Your task to perform on an android device: toggle location history Image 0: 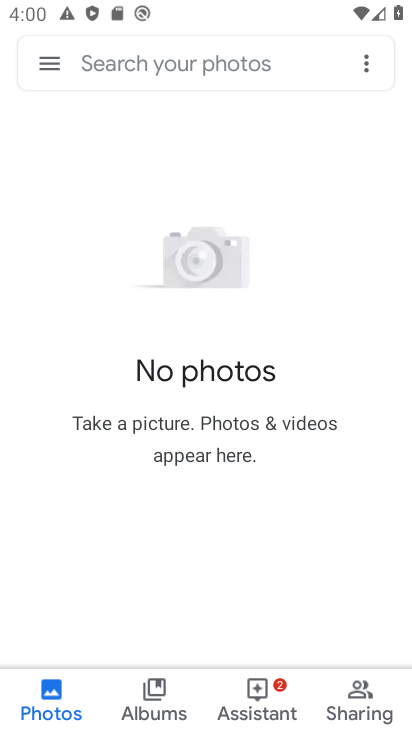
Step 0: press home button
Your task to perform on an android device: toggle location history Image 1: 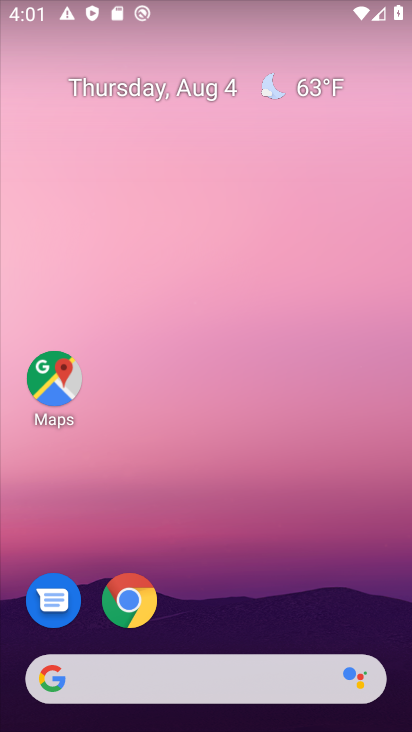
Step 1: drag from (313, 579) to (240, 2)
Your task to perform on an android device: toggle location history Image 2: 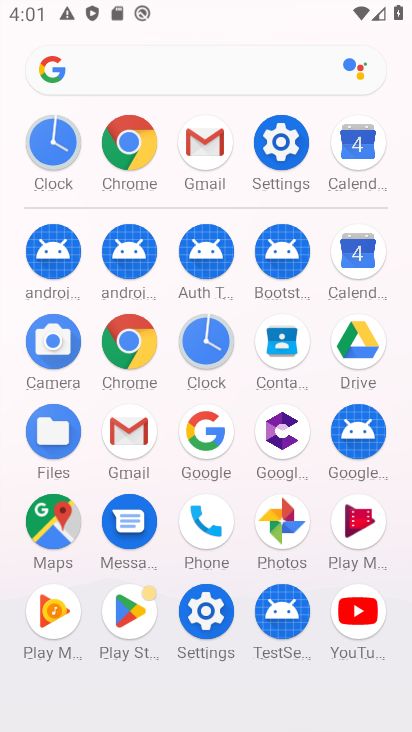
Step 2: click (277, 139)
Your task to perform on an android device: toggle location history Image 3: 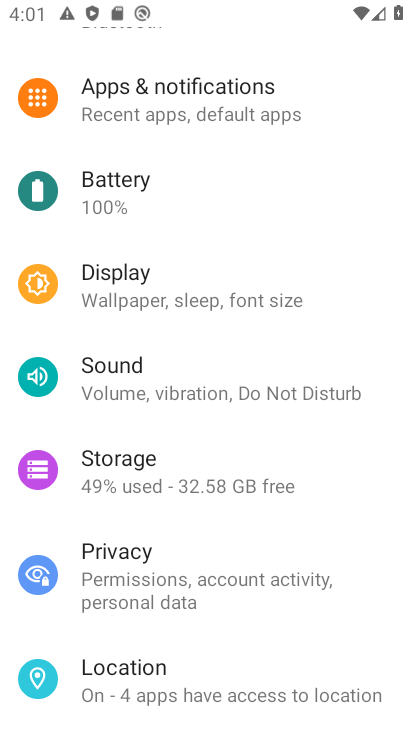
Step 3: drag from (266, 633) to (318, 154)
Your task to perform on an android device: toggle location history Image 4: 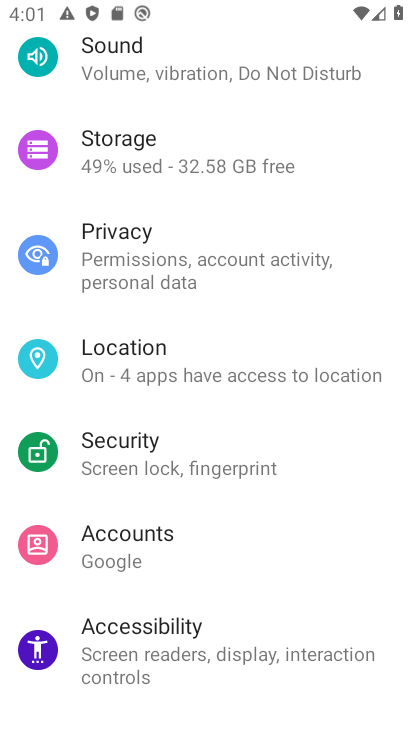
Step 4: click (163, 364)
Your task to perform on an android device: toggle location history Image 5: 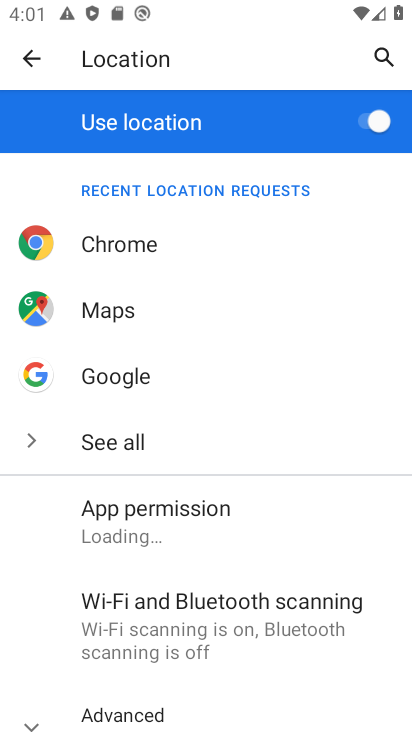
Step 5: drag from (249, 608) to (304, 226)
Your task to perform on an android device: toggle location history Image 6: 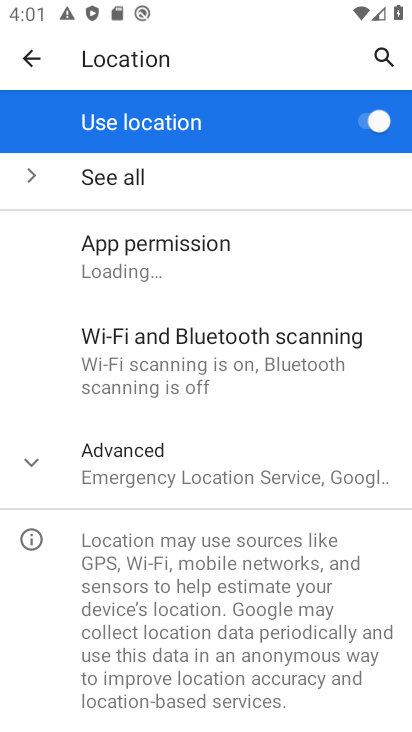
Step 6: click (167, 473)
Your task to perform on an android device: toggle location history Image 7: 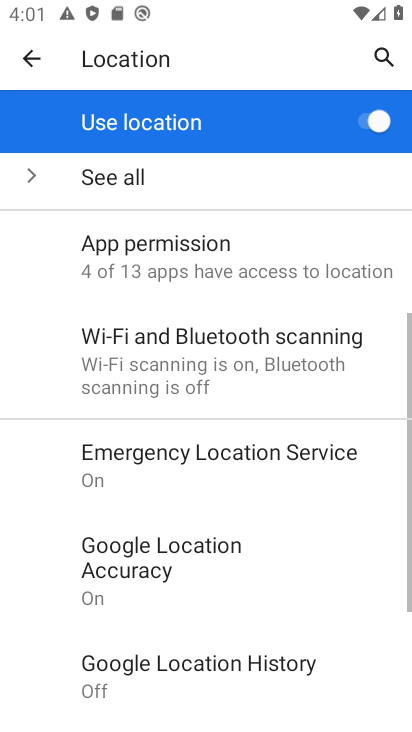
Step 7: drag from (276, 630) to (405, 217)
Your task to perform on an android device: toggle location history Image 8: 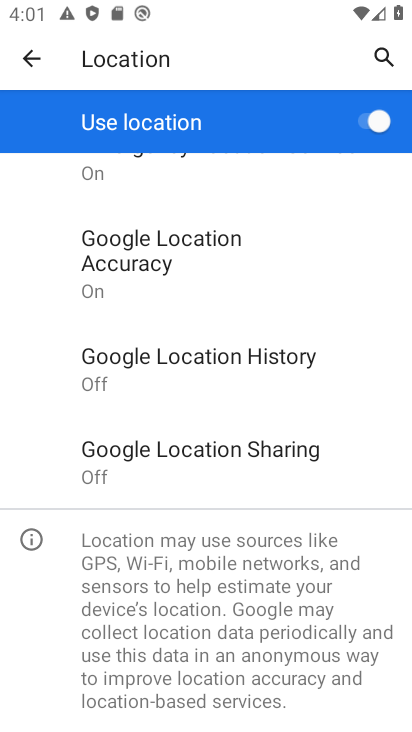
Step 8: click (210, 352)
Your task to perform on an android device: toggle location history Image 9: 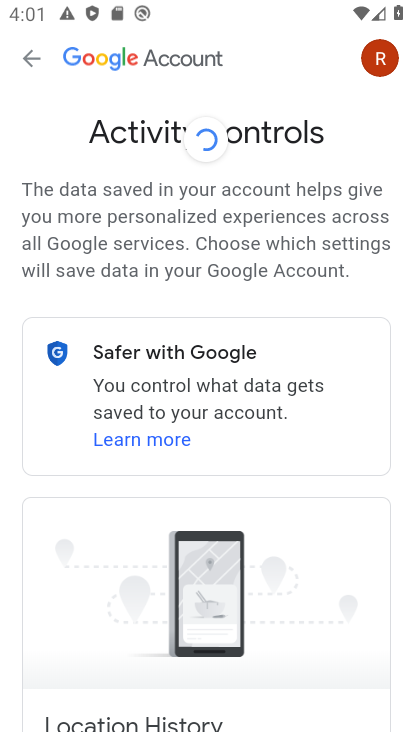
Step 9: drag from (291, 587) to (350, 236)
Your task to perform on an android device: toggle location history Image 10: 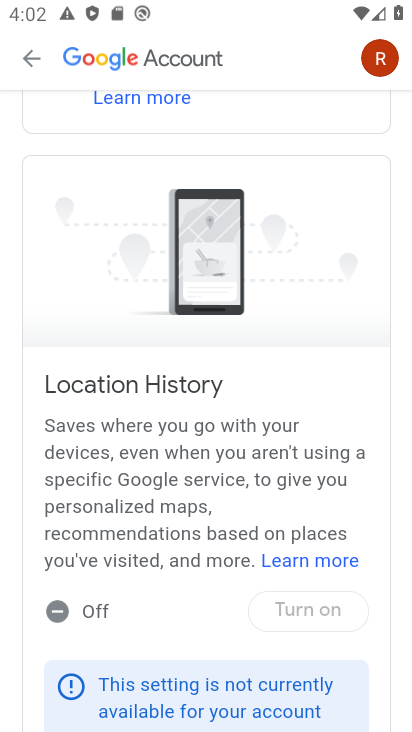
Step 10: drag from (271, 519) to (336, 270)
Your task to perform on an android device: toggle location history Image 11: 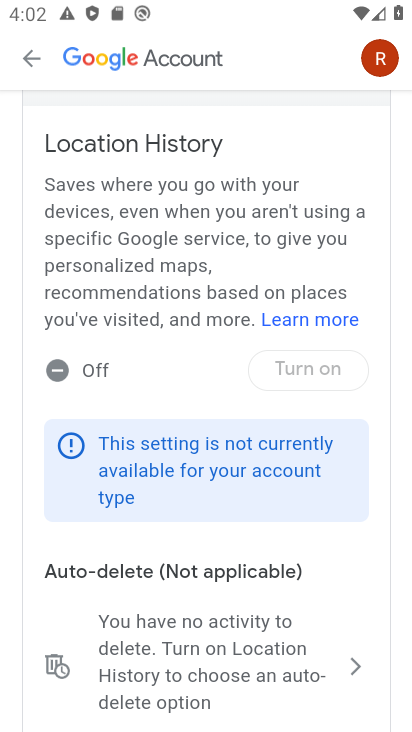
Step 11: click (123, 367)
Your task to perform on an android device: toggle location history Image 12: 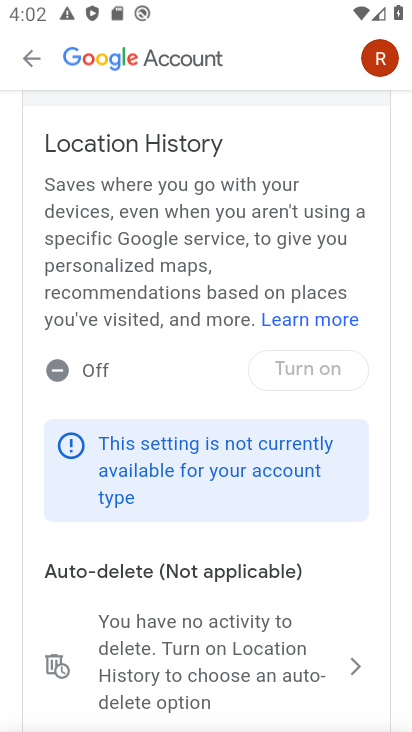
Step 12: click (90, 366)
Your task to perform on an android device: toggle location history Image 13: 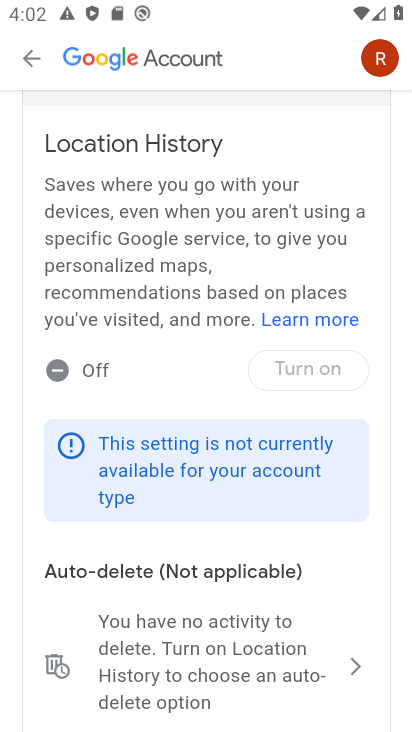
Step 13: task complete